Your task to perform on an android device: change keyboard looks Image 0: 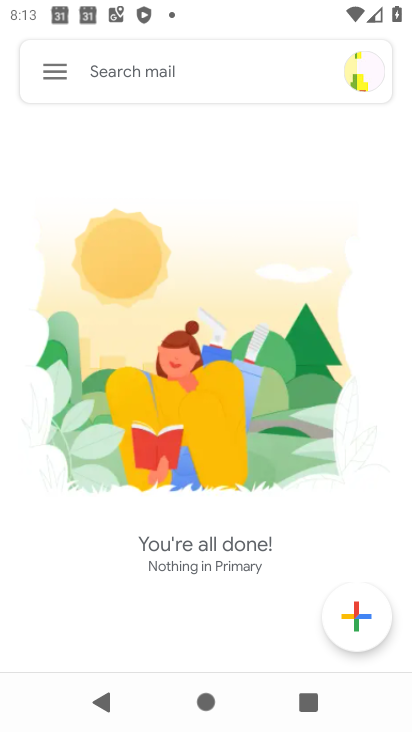
Step 0: press home button
Your task to perform on an android device: change keyboard looks Image 1: 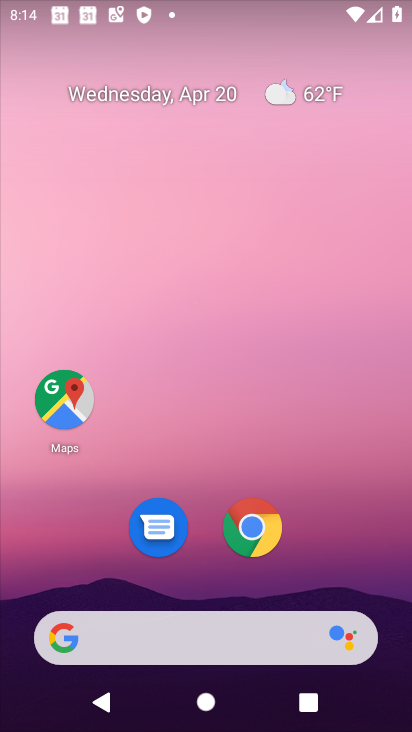
Step 1: drag from (227, 600) to (291, 94)
Your task to perform on an android device: change keyboard looks Image 2: 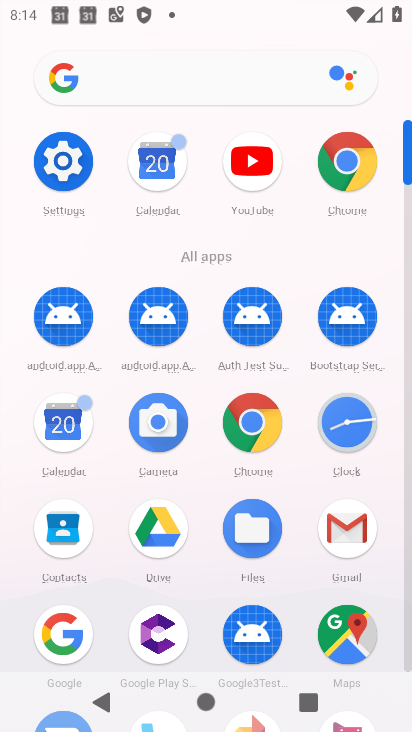
Step 2: drag from (203, 602) to (246, 166)
Your task to perform on an android device: change keyboard looks Image 3: 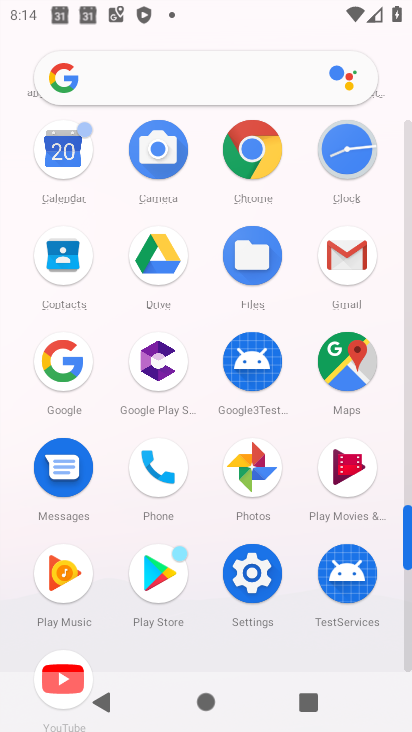
Step 3: click (242, 578)
Your task to perform on an android device: change keyboard looks Image 4: 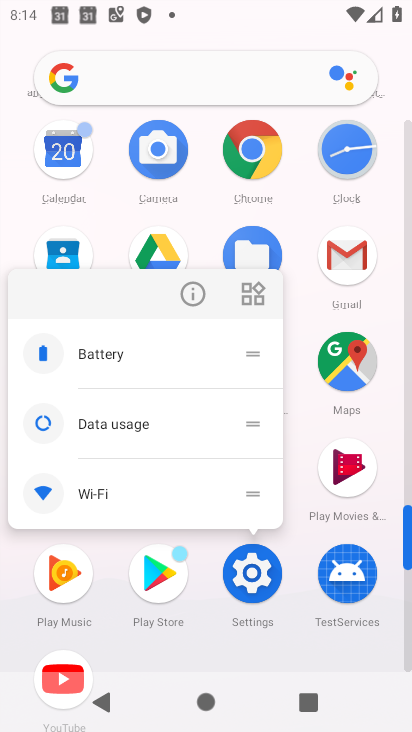
Step 4: click (252, 576)
Your task to perform on an android device: change keyboard looks Image 5: 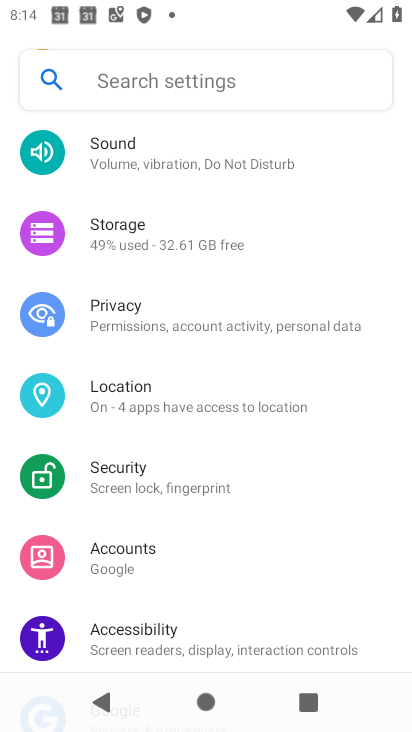
Step 5: drag from (190, 643) to (227, 287)
Your task to perform on an android device: change keyboard looks Image 6: 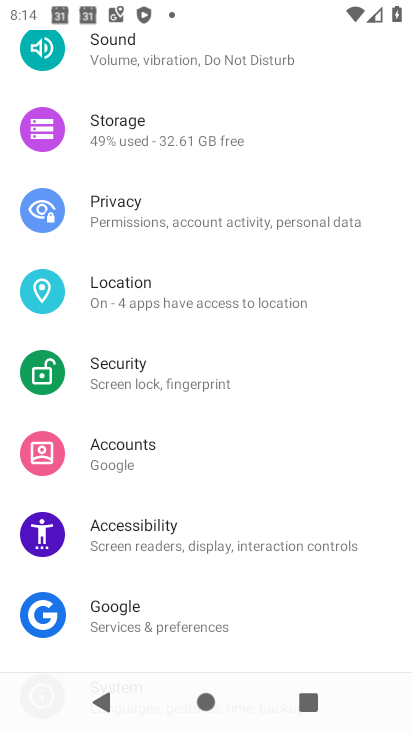
Step 6: drag from (167, 636) to (198, 281)
Your task to perform on an android device: change keyboard looks Image 7: 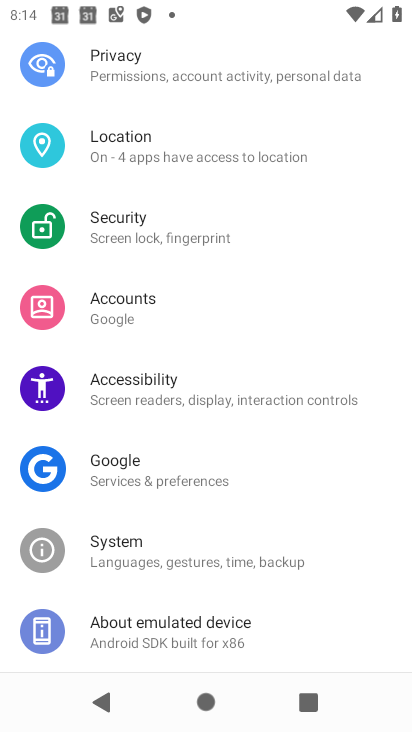
Step 7: click (150, 561)
Your task to perform on an android device: change keyboard looks Image 8: 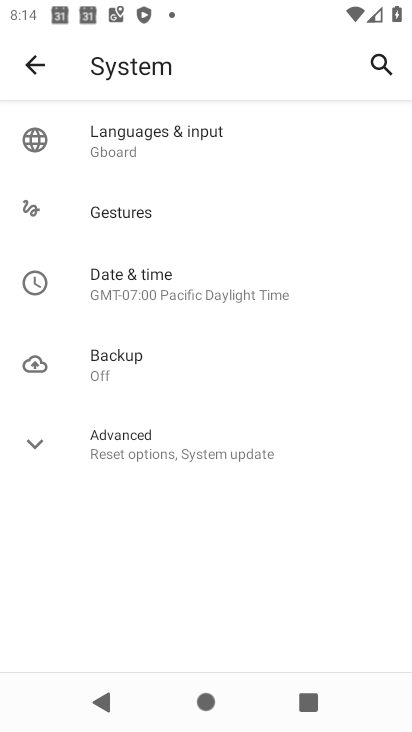
Step 8: click (109, 151)
Your task to perform on an android device: change keyboard looks Image 9: 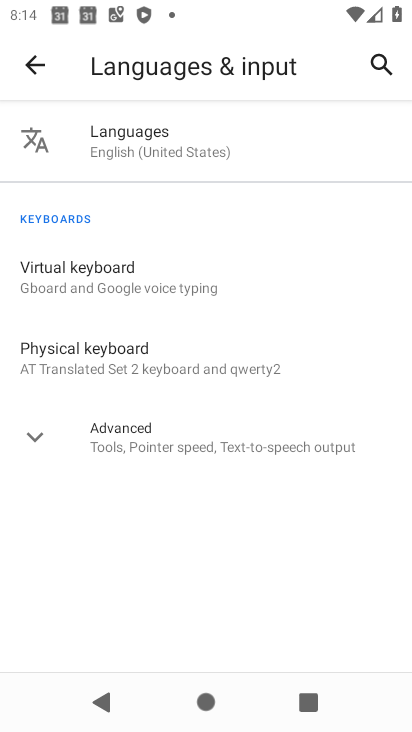
Step 9: click (159, 294)
Your task to perform on an android device: change keyboard looks Image 10: 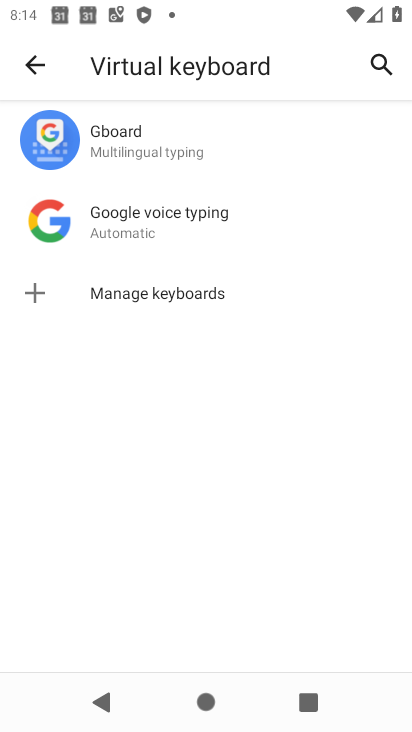
Step 10: click (130, 142)
Your task to perform on an android device: change keyboard looks Image 11: 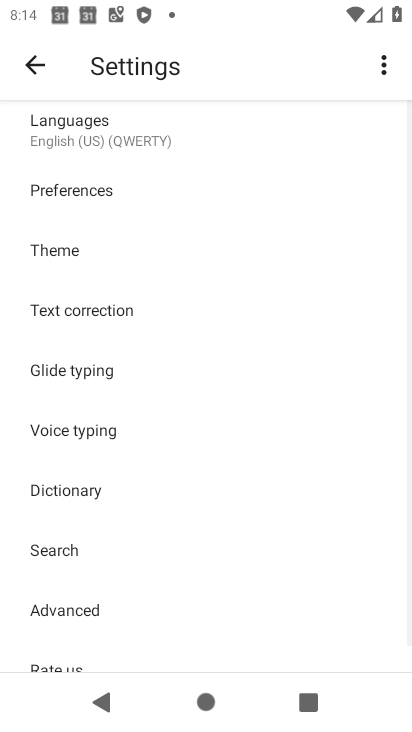
Step 11: click (75, 254)
Your task to perform on an android device: change keyboard looks Image 12: 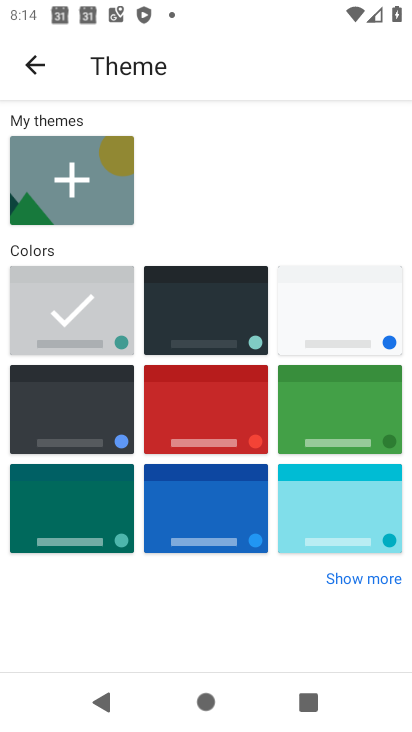
Step 12: click (195, 324)
Your task to perform on an android device: change keyboard looks Image 13: 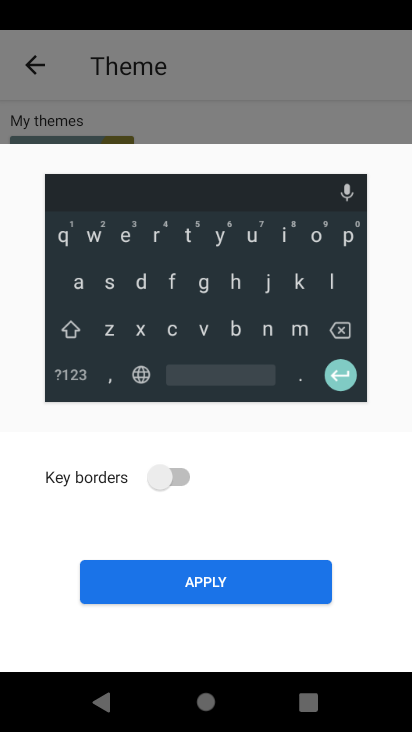
Step 13: click (218, 585)
Your task to perform on an android device: change keyboard looks Image 14: 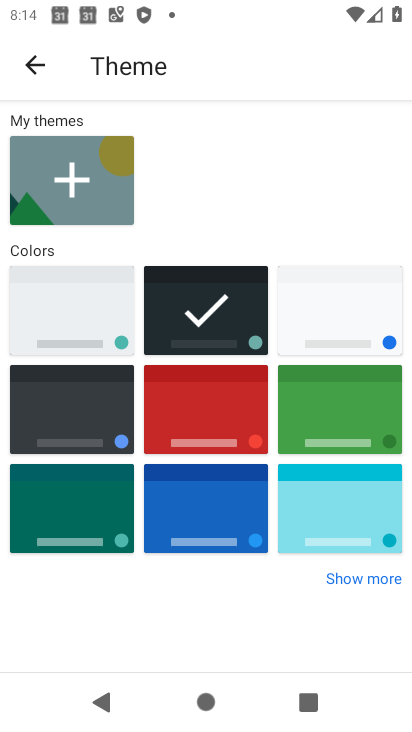
Step 14: task complete